Your task to perform on an android device: choose inbox layout in the gmail app Image 0: 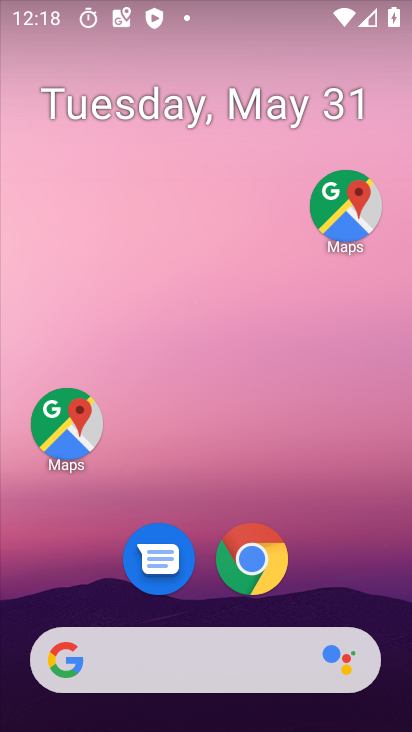
Step 0: drag from (341, 544) to (285, 11)
Your task to perform on an android device: choose inbox layout in the gmail app Image 1: 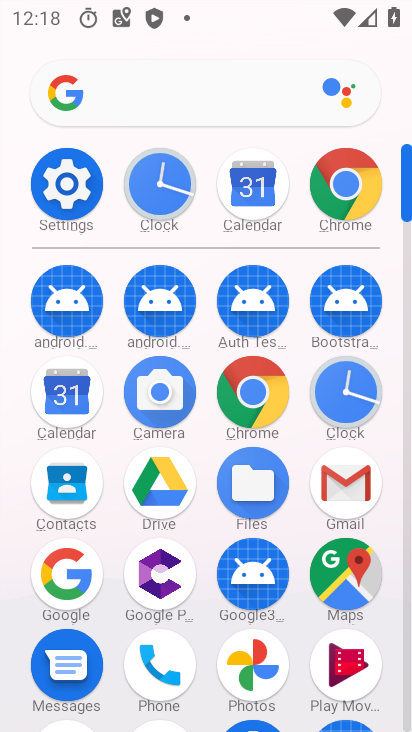
Step 1: click (346, 484)
Your task to perform on an android device: choose inbox layout in the gmail app Image 2: 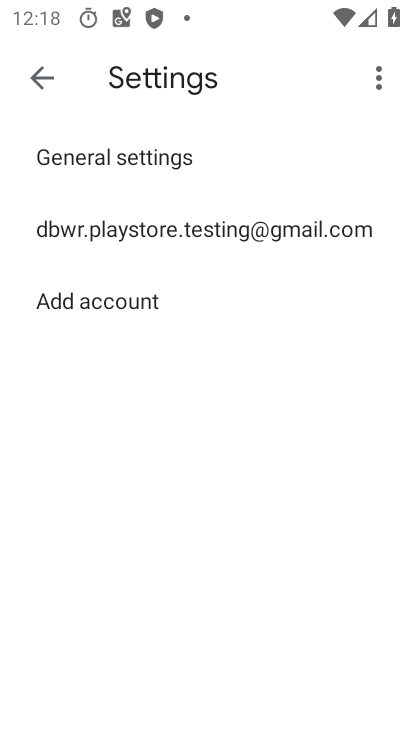
Step 2: click (166, 226)
Your task to perform on an android device: choose inbox layout in the gmail app Image 3: 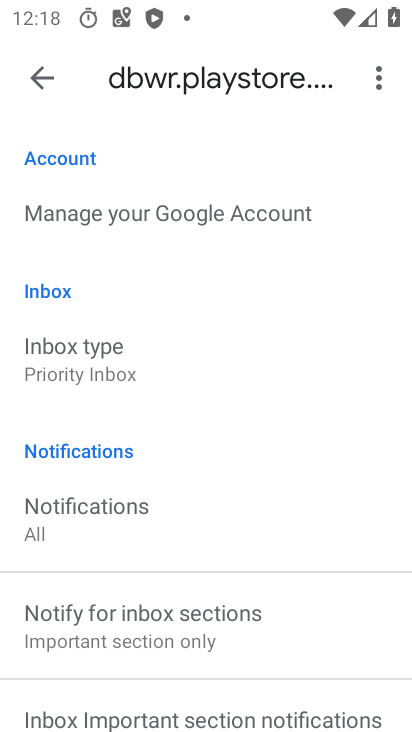
Step 3: click (107, 363)
Your task to perform on an android device: choose inbox layout in the gmail app Image 4: 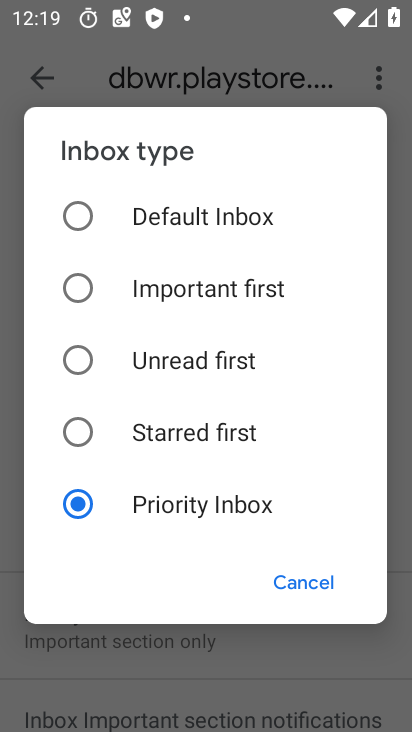
Step 4: task complete